Your task to perform on an android device: Open battery settings Image 0: 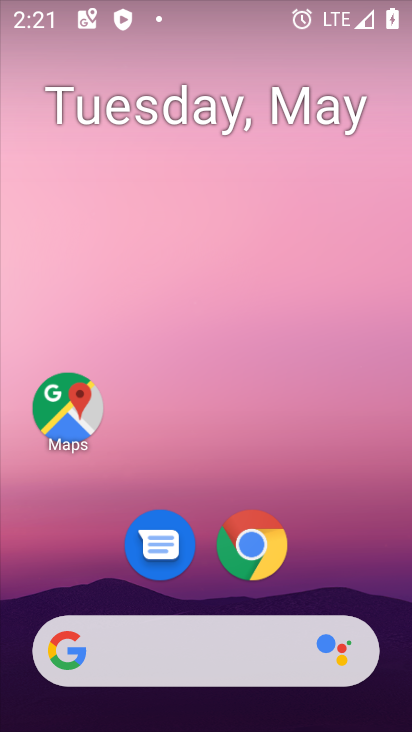
Step 0: drag from (351, 496) to (246, 32)
Your task to perform on an android device: Open battery settings Image 1: 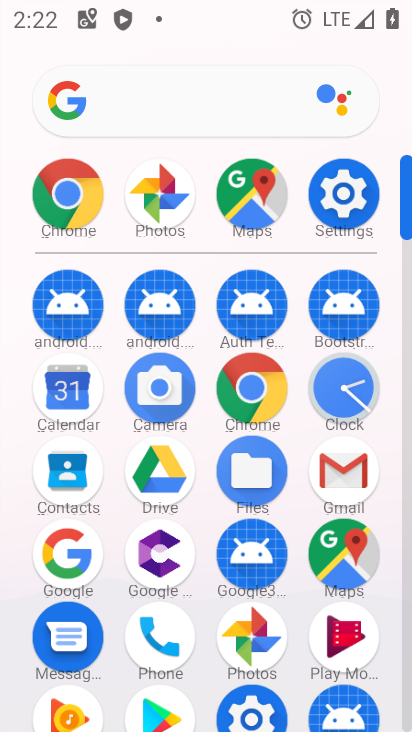
Step 1: drag from (16, 584) to (24, 234)
Your task to perform on an android device: Open battery settings Image 2: 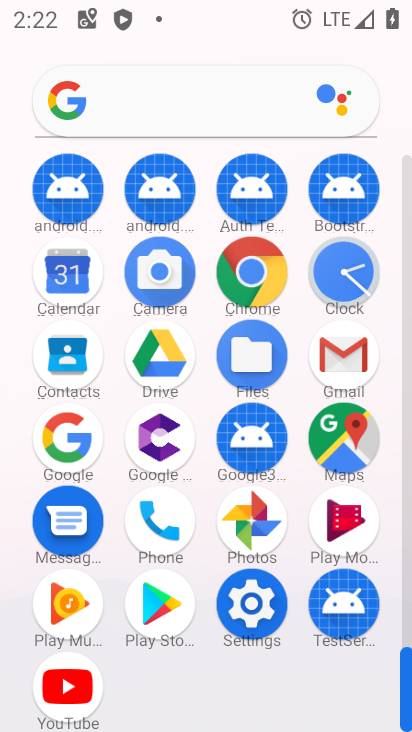
Step 2: click (250, 591)
Your task to perform on an android device: Open battery settings Image 3: 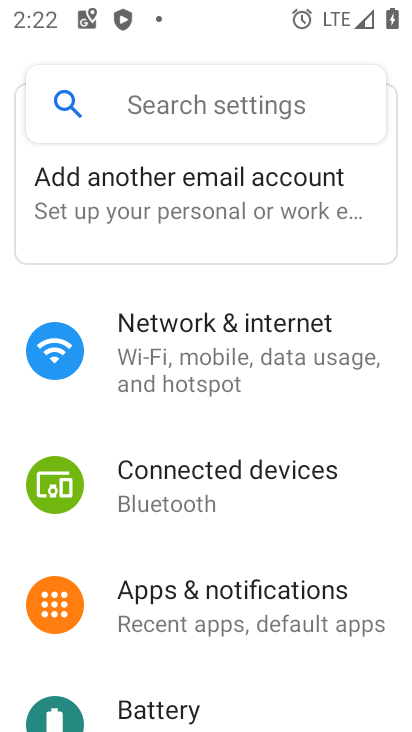
Step 3: drag from (293, 579) to (295, 214)
Your task to perform on an android device: Open battery settings Image 4: 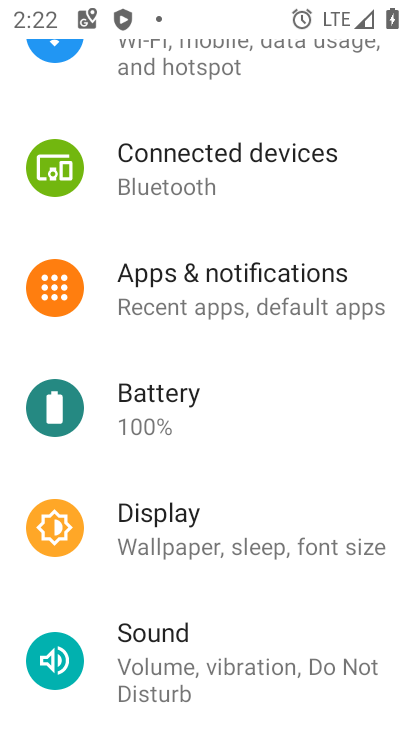
Step 4: click (191, 396)
Your task to perform on an android device: Open battery settings Image 5: 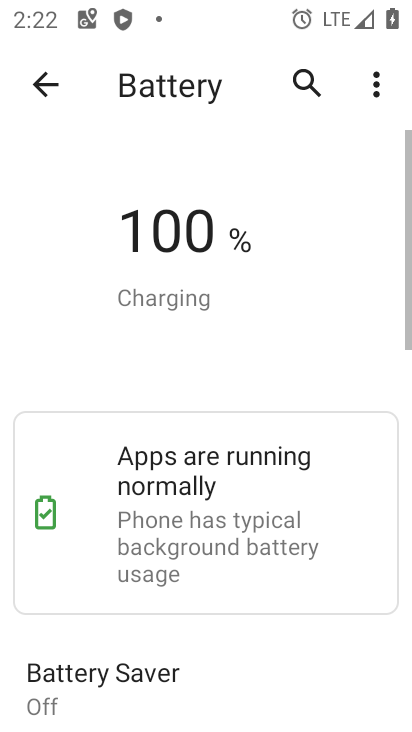
Step 5: task complete